Your task to perform on an android device: Open Yahoo.com Image 0: 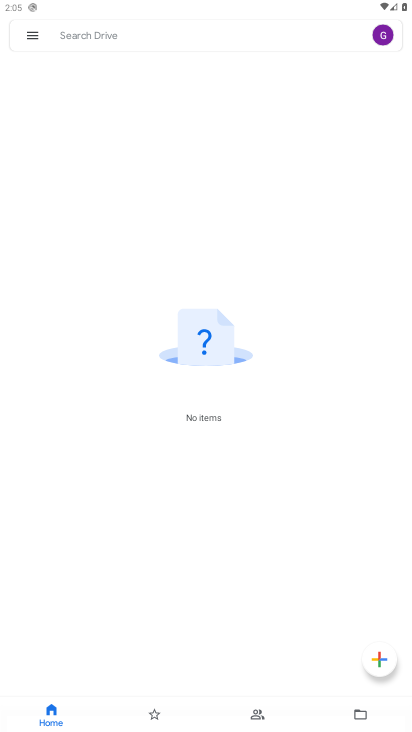
Step 0: press home button
Your task to perform on an android device: Open Yahoo.com Image 1: 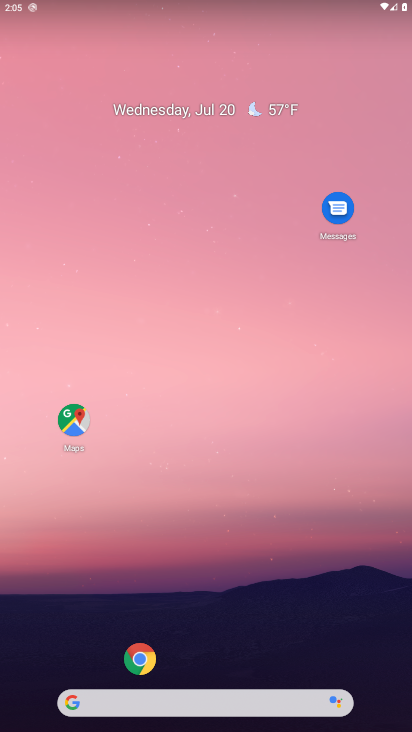
Step 1: click (93, 707)
Your task to perform on an android device: Open Yahoo.com Image 2: 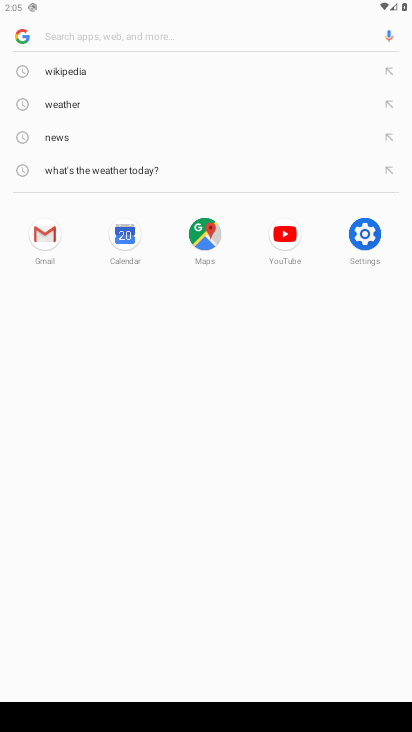
Step 2: type "Yahoo.com"
Your task to perform on an android device: Open Yahoo.com Image 3: 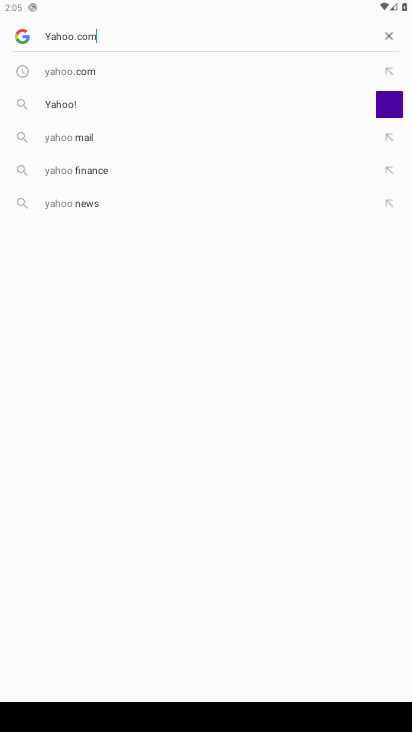
Step 3: type ""
Your task to perform on an android device: Open Yahoo.com Image 4: 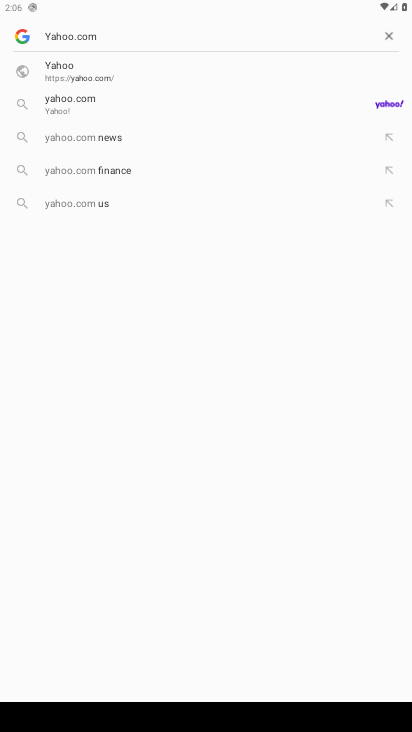
Step 4: click (91, 78)
Your task to perform on an android device: Open Yahoo.com Image 5: 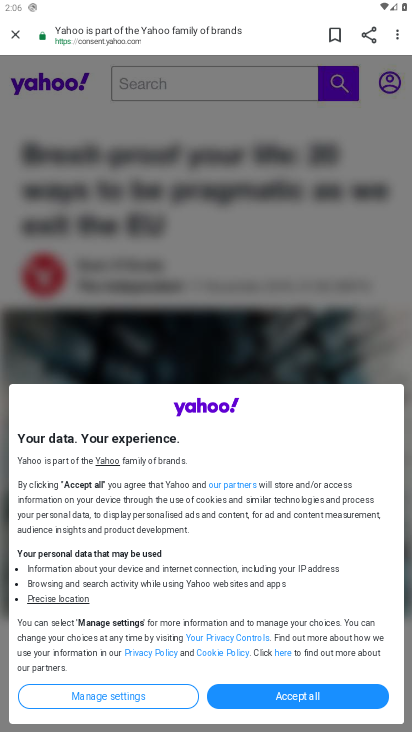
Step 5: task complete